Your task to perform on an android device: Open notification settings Image 0: 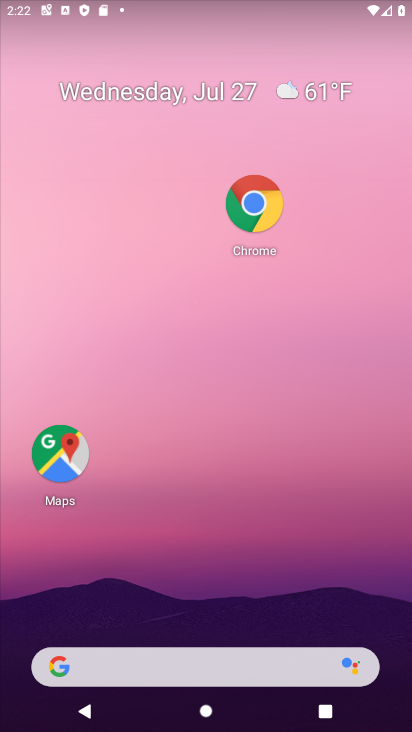
Step 0: drag from (237, 615) to (201, 55)
Your task to perform on an android device: Open notification settings Image 1: 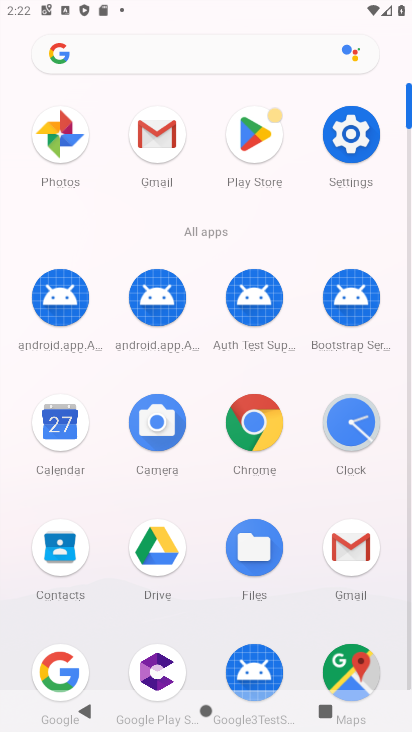
Step 1: click (339, 145)
Your task to perform on an android device: Open notification settings Image 2: 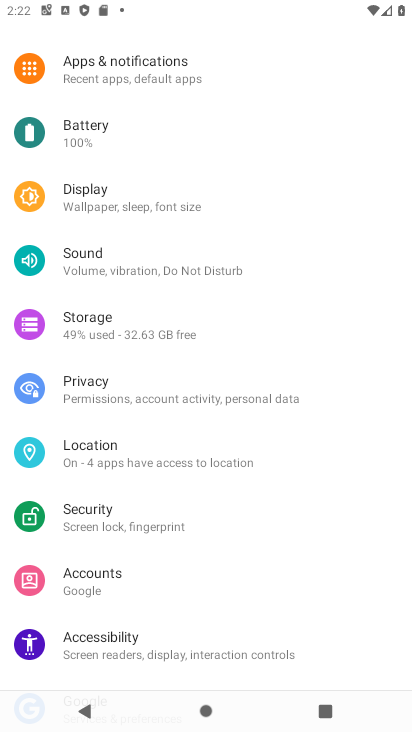
Step 2: click (182, 92)
Your task to perform on an android device: Open notification settings Image 3: 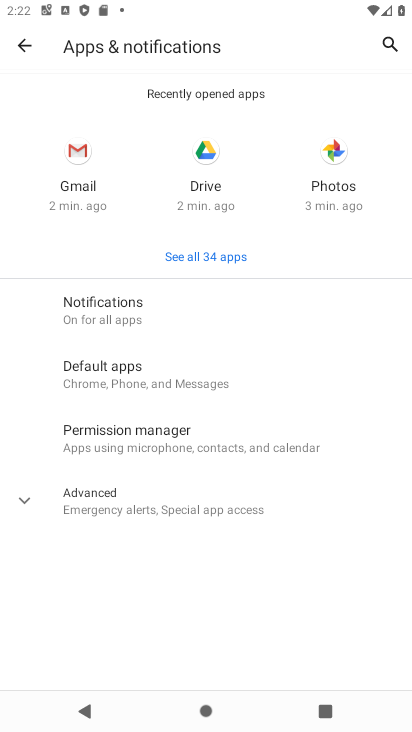
Step 3: click (129, 322)
Your task to perform on an android device: Open notification settings Image 4: 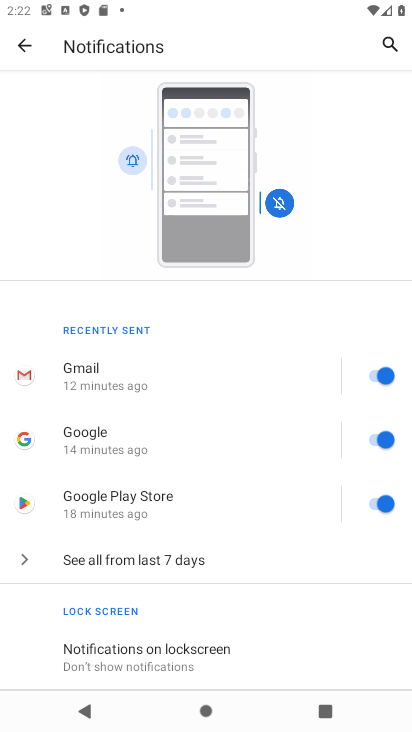
Step 4: task complete